Your task to perform on an android device: Search for Mexican restaurants on Maps Image 0: 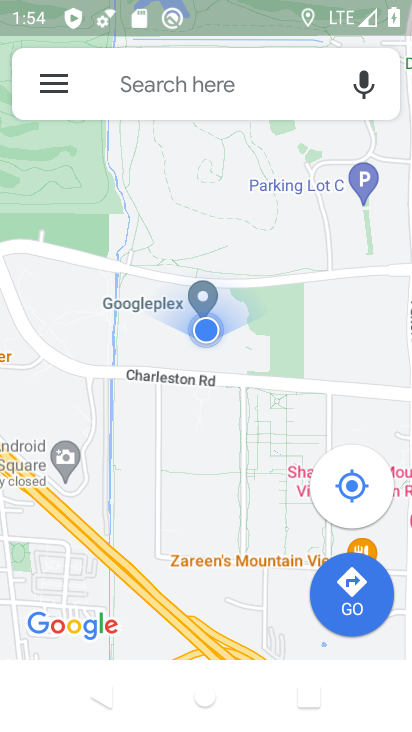
Step 0: click (217, 73)
Your task to perform on an android device: Search for Mexican restaurants on Maps Image 1: 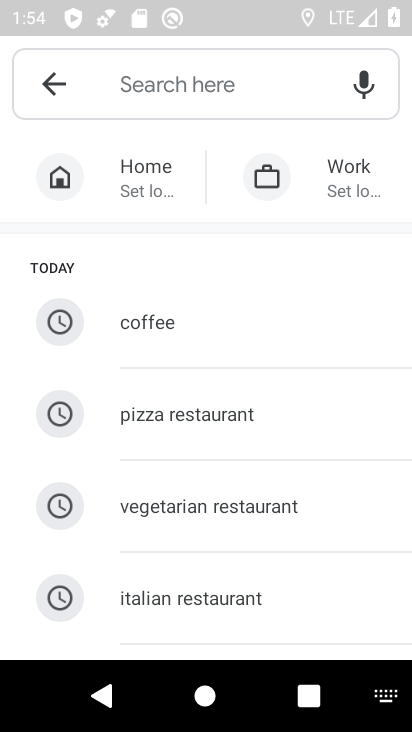
Step 1: type "Mexican testaurants"
Your task to perform on an android device: Search for Mexican restaurants on Maps Image 2: 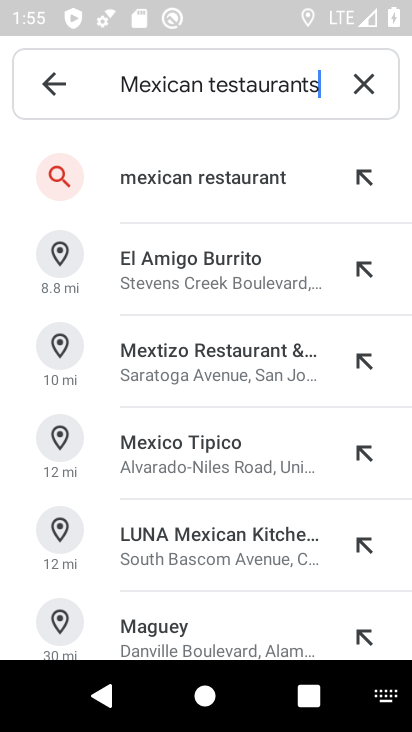
Step 2: press enter
Your task to perform on an android device: Search for Mexican restaurants on Maps Image 3: 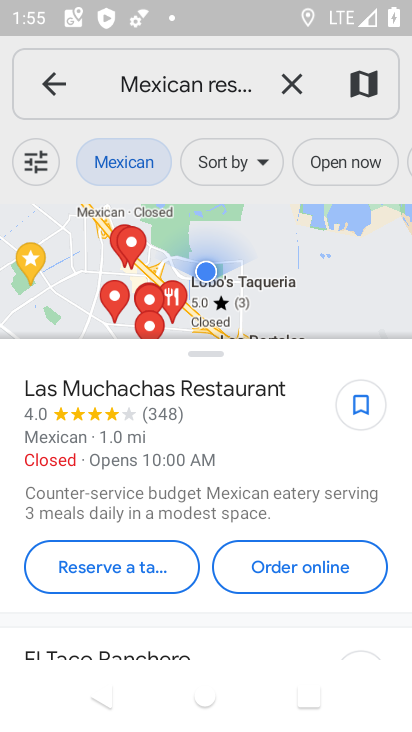
Step 3: task complete